Your task to perform on an android device: turn off notifications in google photos Image 0: 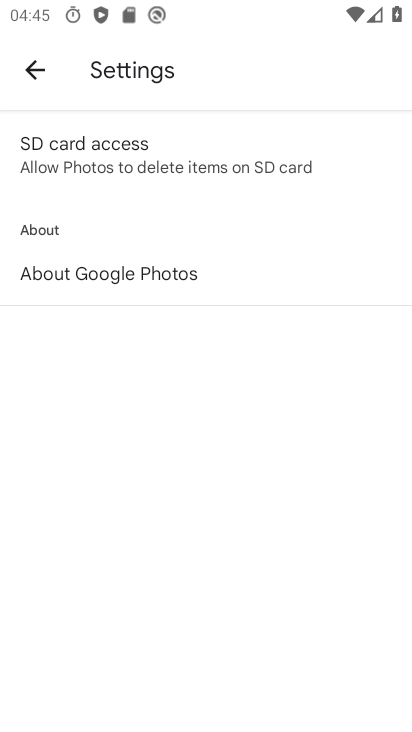
Step 0: press home button
Your task to perform on an android device: turn off notifications in google photos Image 1: 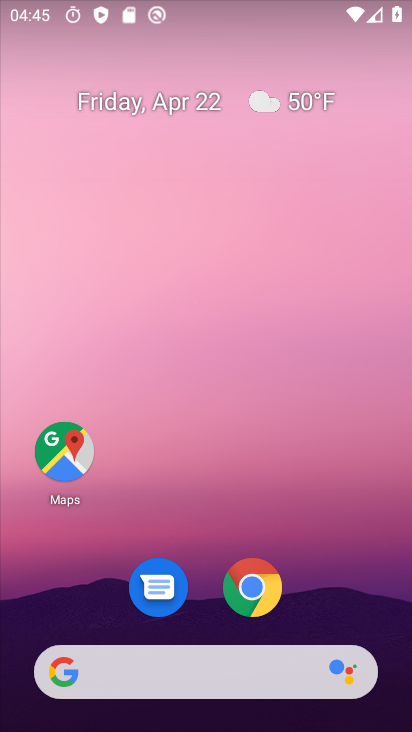
Step 1: drag from (393, 609) to (381, 0)
Your task to perform on an android device: turn off notifications in google photos Image 2: 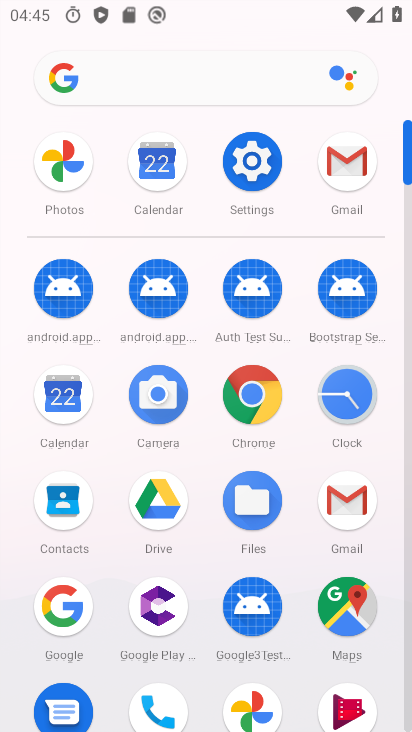
Step 2: click (58, 168)
Your task to perform on an android device: turn off notifications in google photos Image 3: 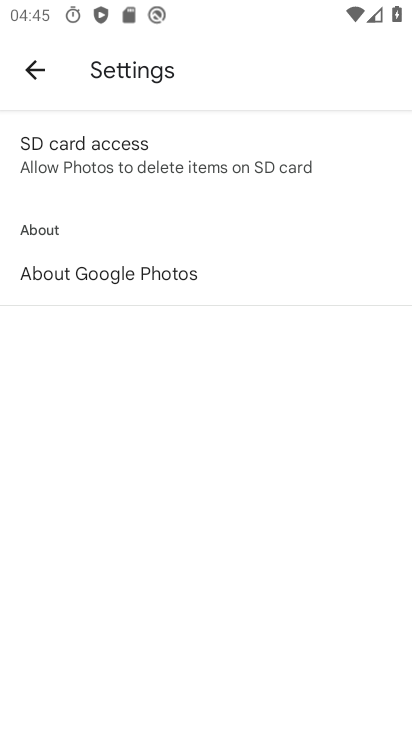
Step 3: click (32, 76)
Your task to perform on an android device: turn off notifications in google photos Image 4: 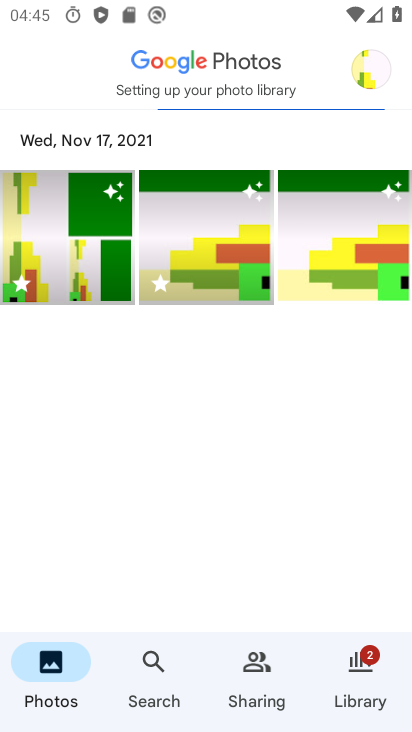
Step 4: click (364, 79)
Your task to perform on an android device: turn off notifications in google photos Image 5: 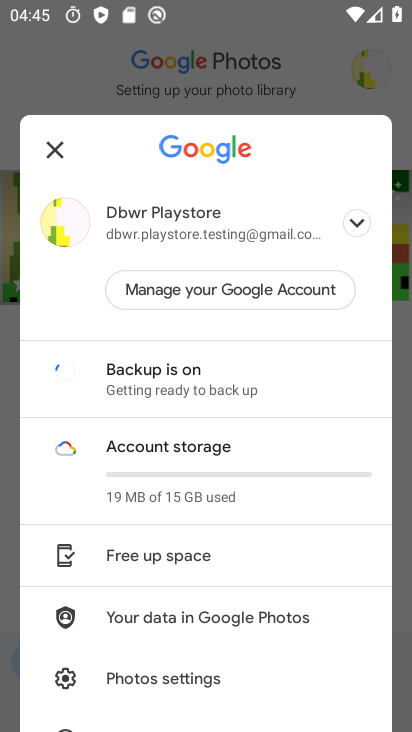
Step 5: click (155, 385)
Your task to perform on an android device: turn off notifications in google photos Image 6: 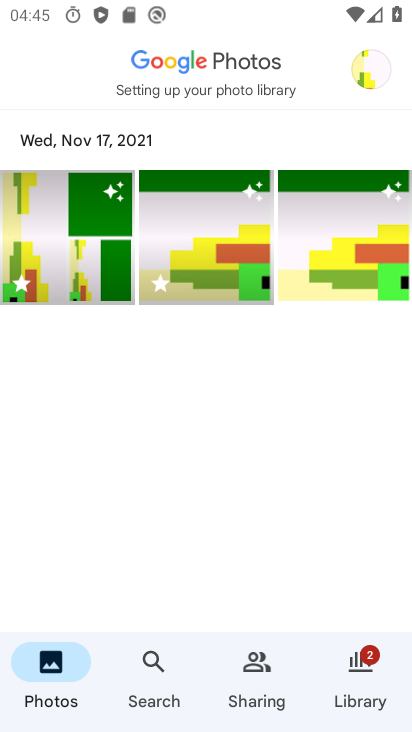
Step 6: click (373, 66)
Your task to perform on an android device: turn off notifications in google photos Image 7: 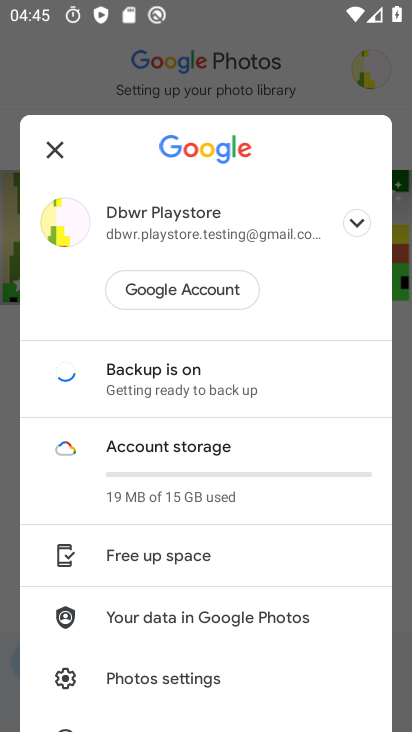
Step 7: drag from (243, 579) to (250, 319)
Your task to perform on an android device: turn off notifications in google photos Image 8: 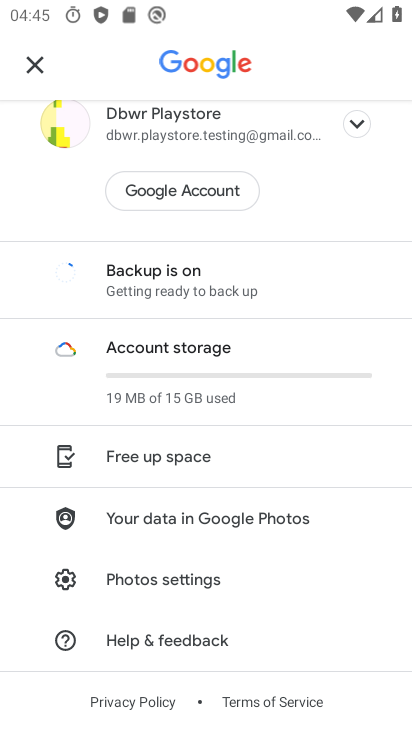
Step 8: click (188, 577)
Your task to perform on an android device: turn off notifications in google photos Image 9: 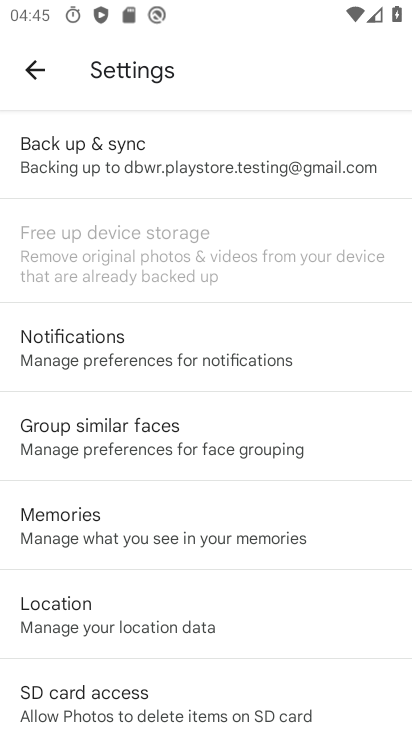
Step 9: click (116, 360)
Your task to perform on an android device: turn off notifications in google photos Image 10: 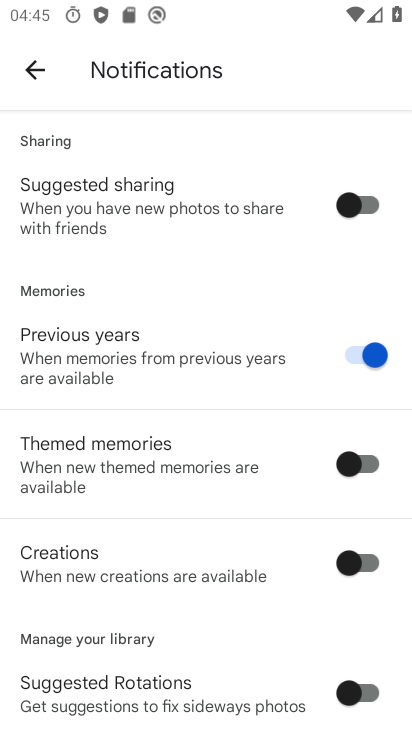
Step 10: drag from (153, 540) to (146, 193)
Your task to perform on an android device: turn off notifications in google photos Image 11: 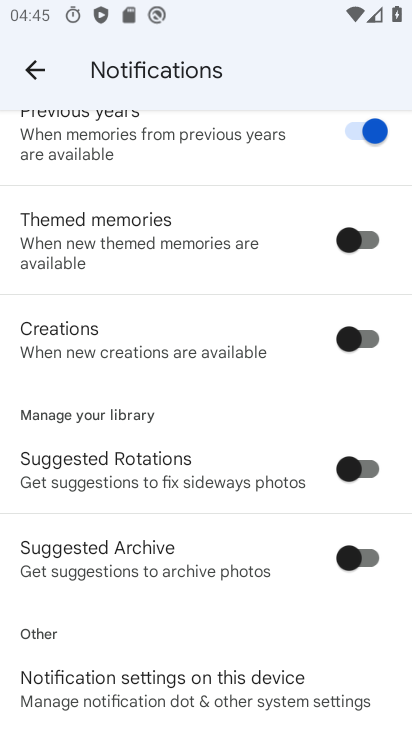
Step 11: drag from (172, 566) to (174, 277)
Your task to perform on an android device: turn off notifications in google photos Image 12: 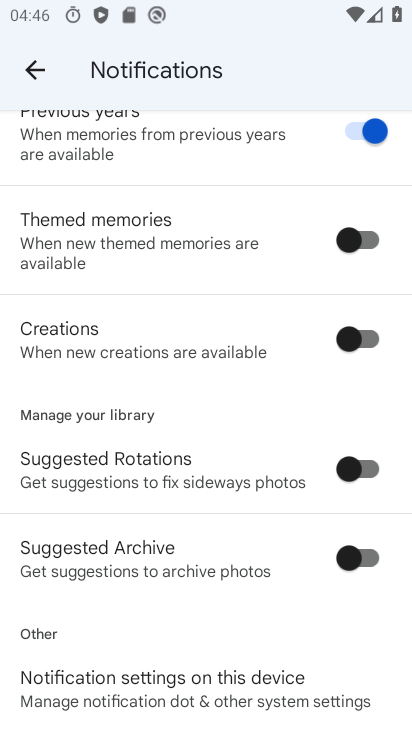
Step 12: click (146, 689)
Your task to perform on an android device: turn off notifications in google photos Image 13: 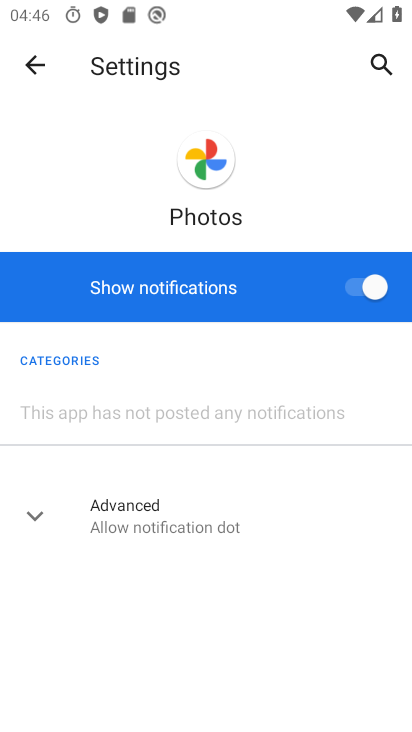
Step 13: click (374, 281)
Your task to perform on an android device: turn off notifications in google photos Image 14: 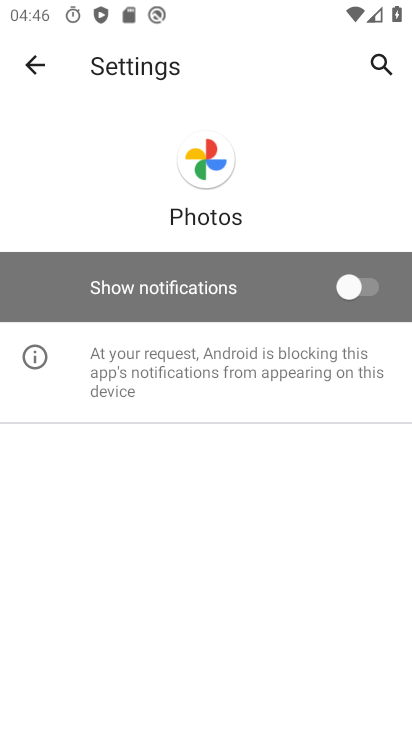
Step 14: task complete